Your task to perform on an android device: delete location history Image 0: 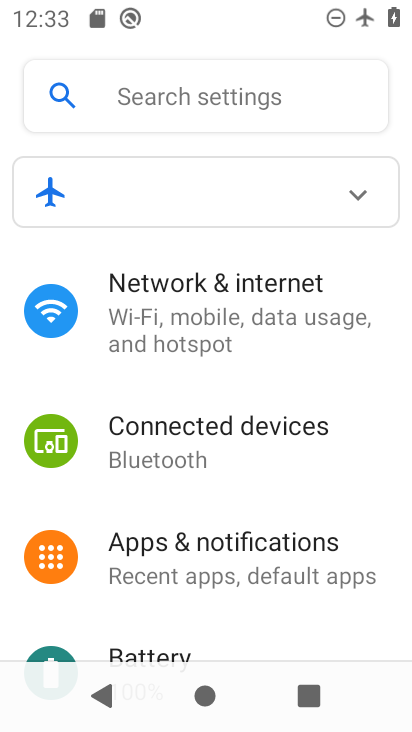
Step 0: drag from (247, 547) to (312, 73)
Your task to perform on an android device: delete location history Image 1: 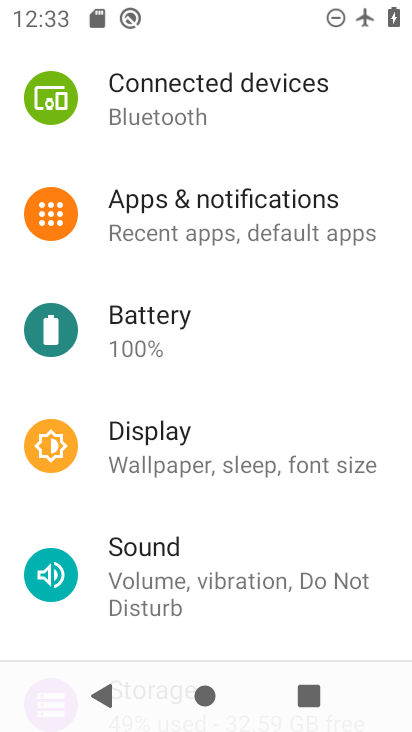
Step 1: drag from (184, 568) to (278, 79)
Your task to perform on an android device: delete location history Image 2: 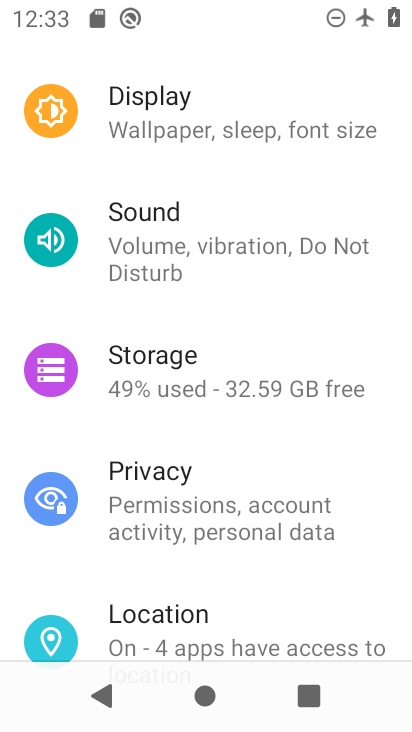
Step 2: click (136, 615)
Your task to perform on an android device: delete location history Image 3: 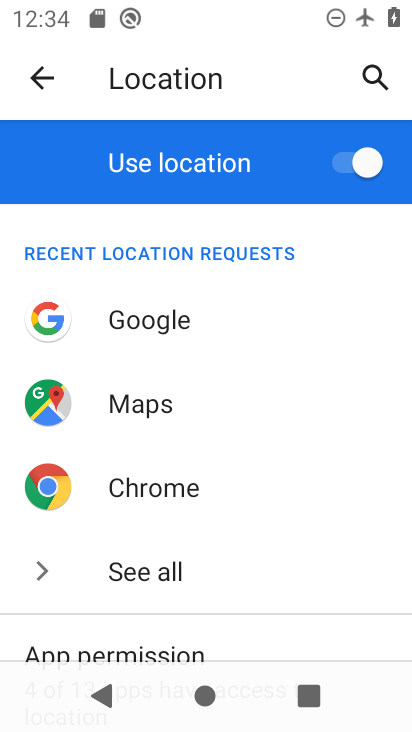
Step 3: drag from (231, 588) to (288, 217)
Your task to perform on an android device: delete location history Image 4: 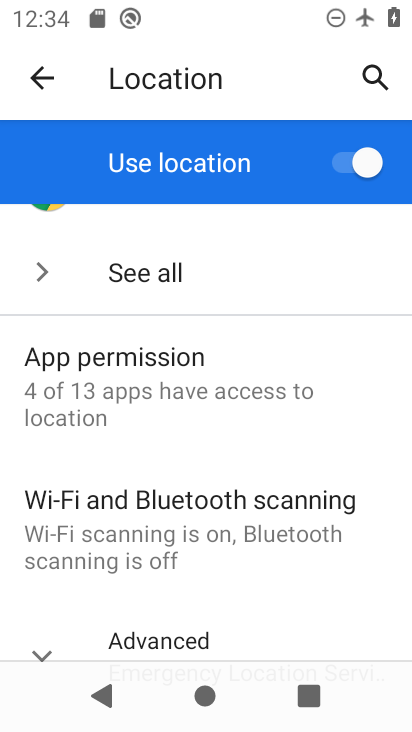
Step 4: drag from (199, 536) to (258, 273)
Your task to perform on an android device: delete location history Image 5: 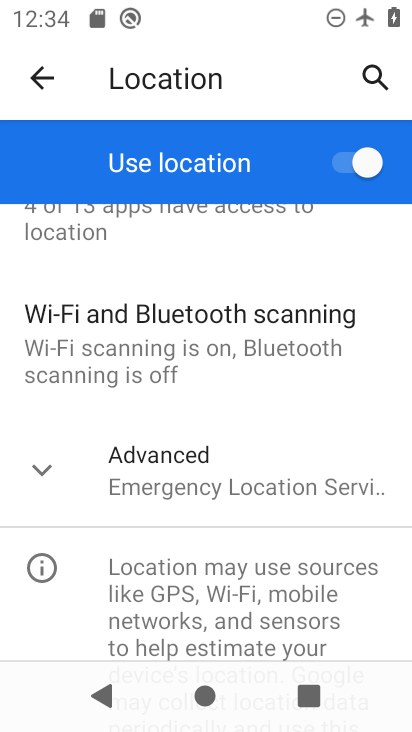
Step 5: click (191, 481)
Your task to perform on an android device: delete location history Image 6: 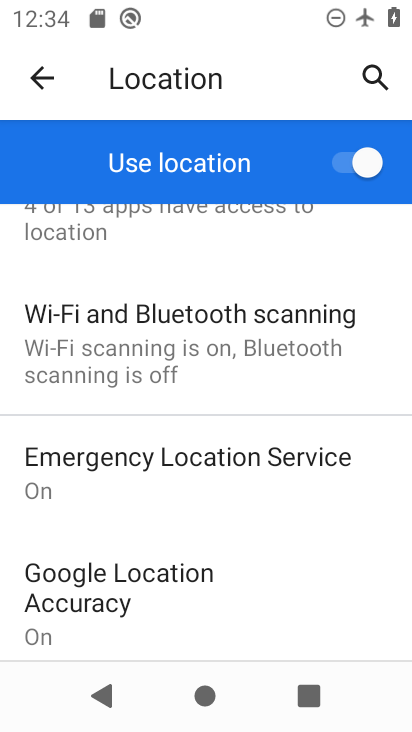
Step 6: drag from (219, 569) to (303, 374)
Your task to perform on an android device: delete location history Image 7: 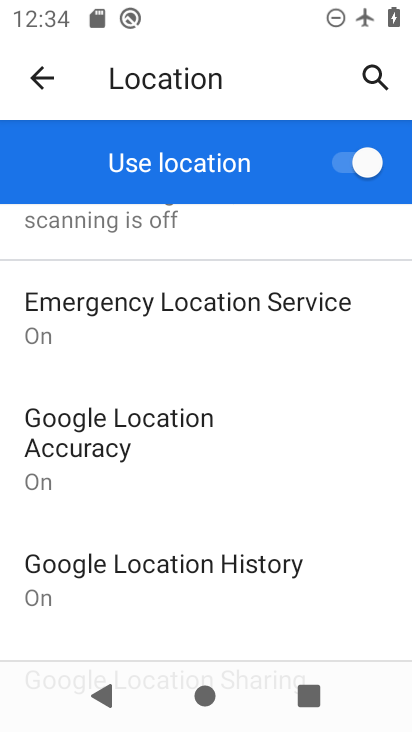
Step 7: drag from (203, 607) to (284, 296)
Your task to perform on an android device: delete location history Image 8: 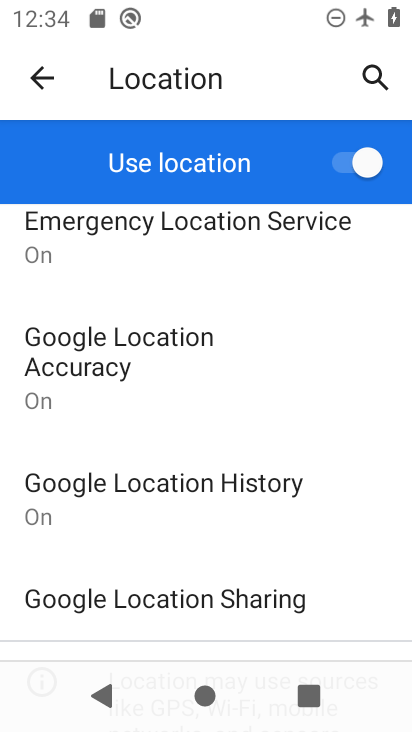
Step 8: press home button
Your task to perform on an android device: delete location history Image 9: 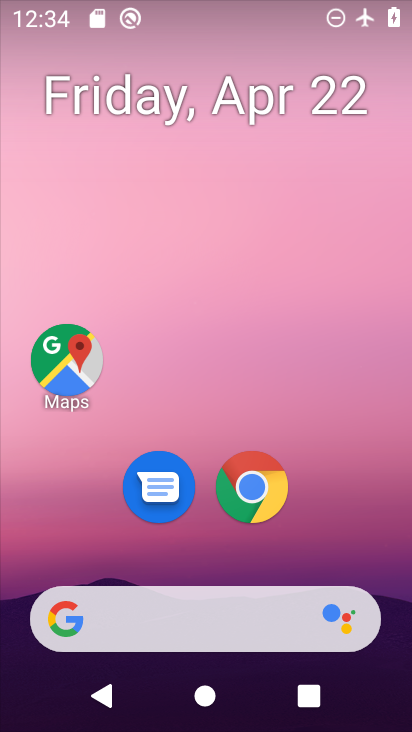
Step 9: click (76, 349)
Your task to perform on an android device: delete location history Image 10: 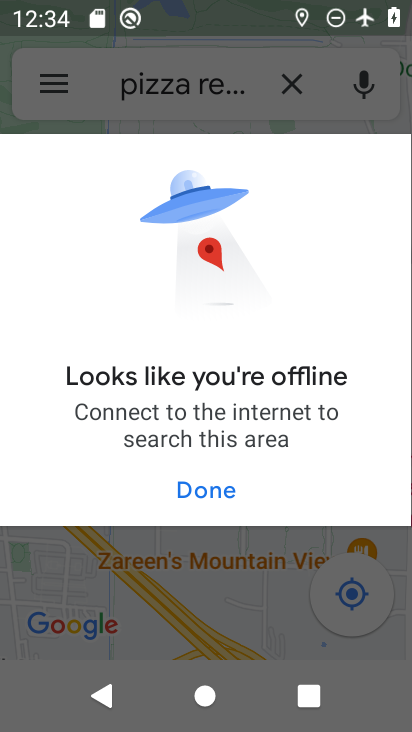
Step 10: click (186, 487)
Your task to perform on an android device: delete location history Image 11: 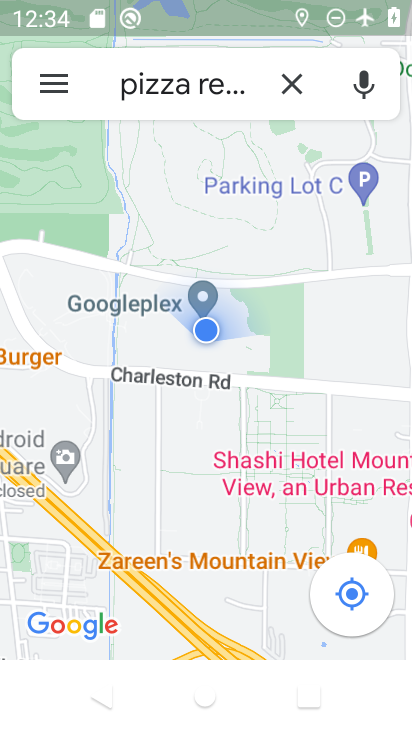
Step 11: click (49, 78)
Your task to perform on an android device: delete location history Image 12: 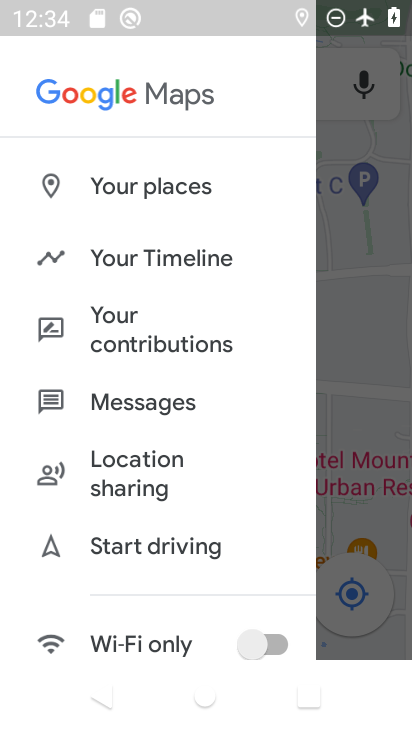
Step 12: click (123, 255)
Your task to perform on an android device: delete location history Image 13: 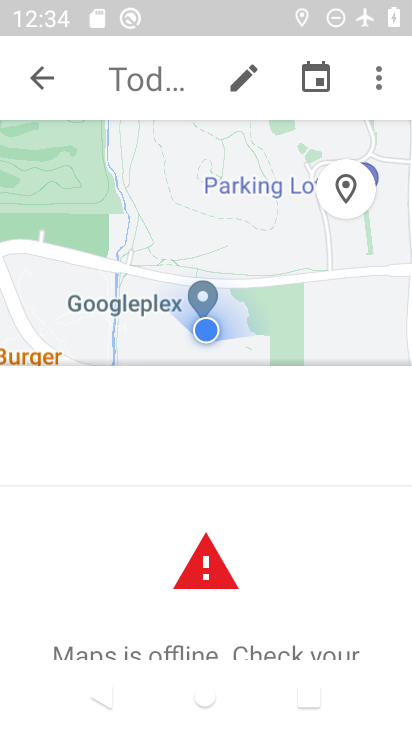
Step 13: click (377, 89)
Your task to perform on an android device: delete location history Image 14: 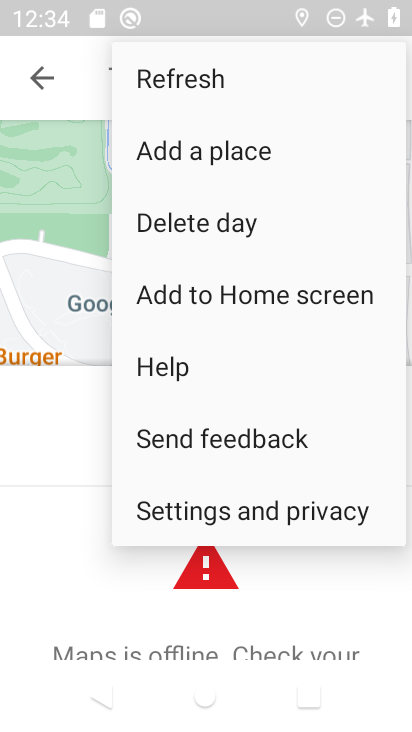
Step 14: click (234, 514)
Your task to perform on an android device: delete location history Image 15: 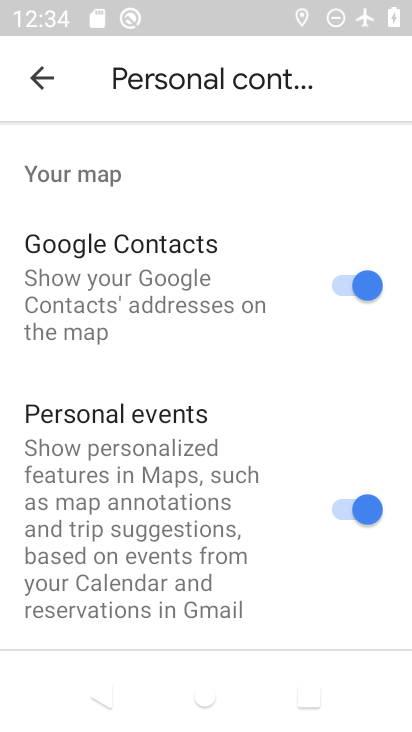
Step 15: drag from (206, 583) to (325, 158)
Your task to perform on an android device: delete location history Image 16: 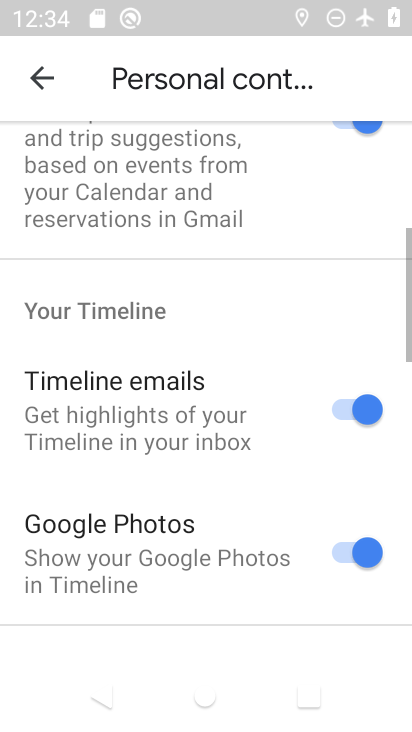
Step 16: drag from (170, 612) to (270, 182)
Your task to perform on an android device: delete location history Image 17: 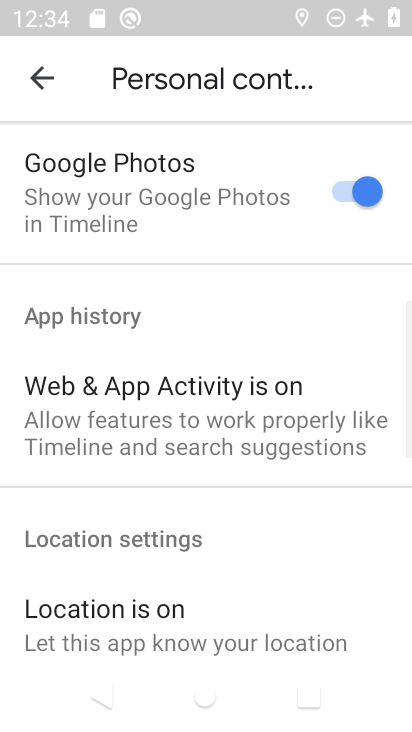
Step 17: drag from (189, 539) to (252, 162)
Your task to perform on an android device: delete location history Image 18: 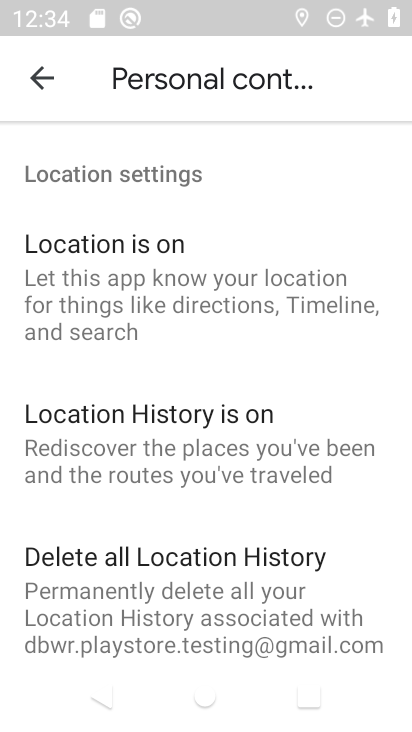
Step 18: click (159, 583)
Your task to perform on an android device: delete location history Image 19: 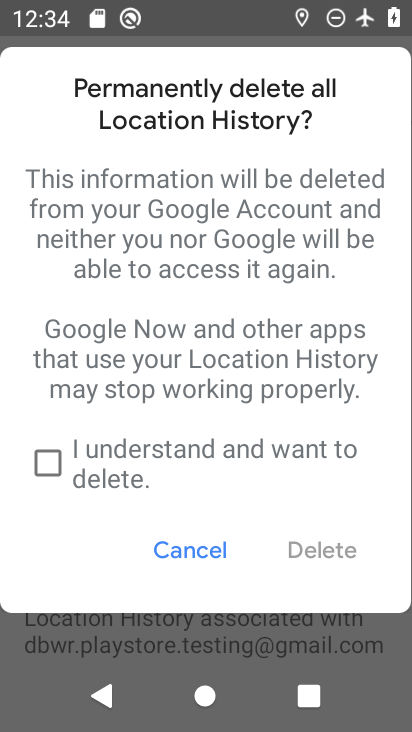
Step 19: click (52, 451)
Your task to perform on an android device: delete location history Image 20: 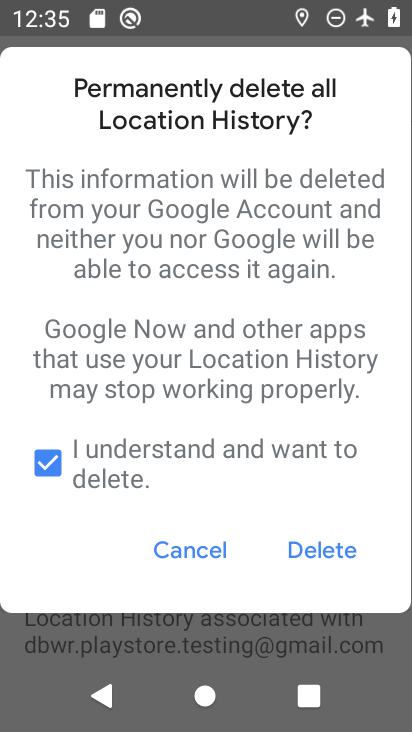
Step 20: click (313, 553)
Your task to perform on an android device: delete location history Image 21: 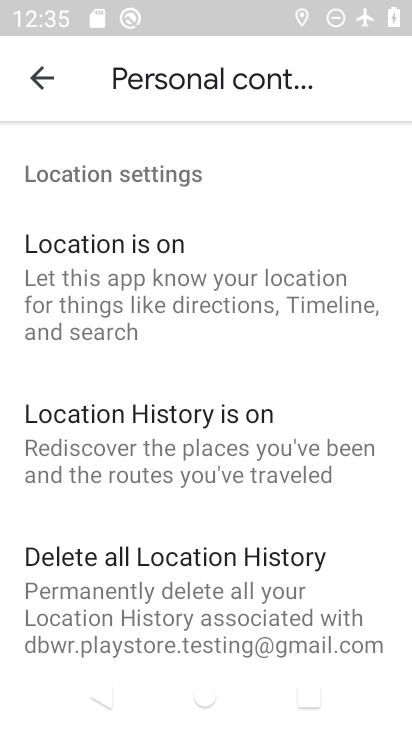
Step 21: task complete